Your task to perform on an android device: turn on location history Image 0: 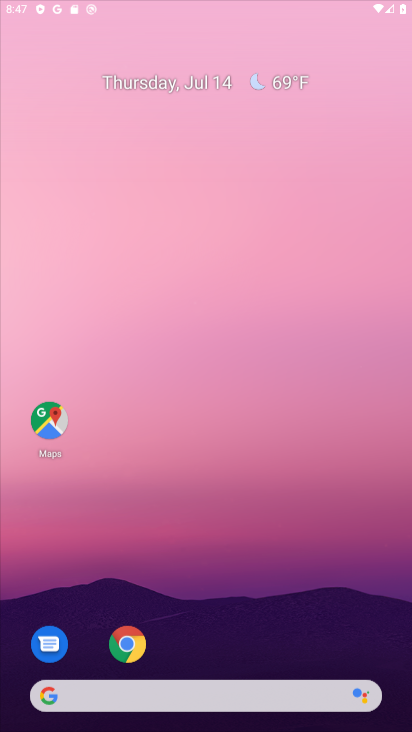
Step 0: click (232, 2)
Your task to perform on an android device: turn on location history Image 1: 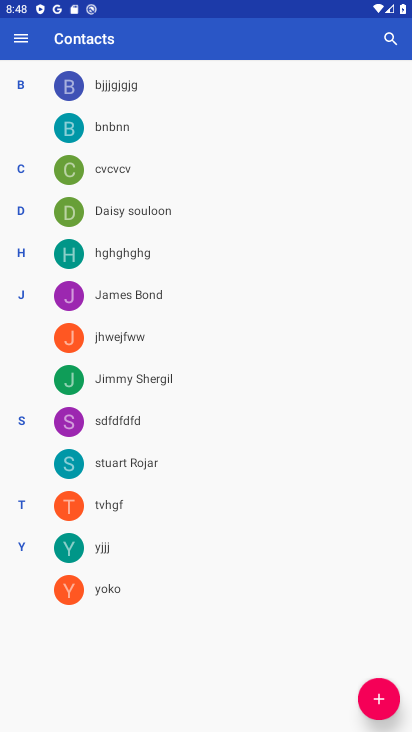
Step 1: press home button
Your task to perform on an android device: turn on location history Image 2: 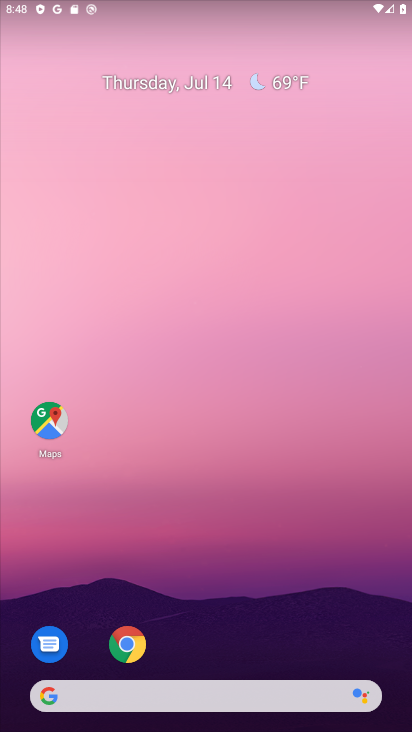
Step 2: click (115, 652)
Your task to perform on an android device: turn on location history Image 3: 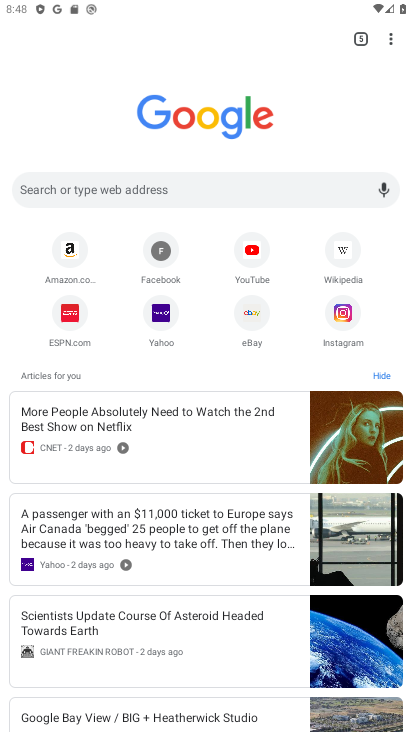
Step 3: press home button
Your task to perform on an android device: turn on location history Image 4: 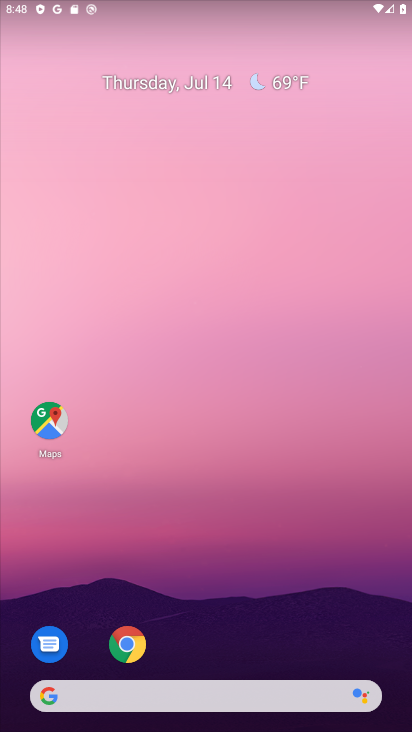
Step 4: drag from (353, 247) to (333, 141)
Your task to perform on an android device: turn on location history Image 5: 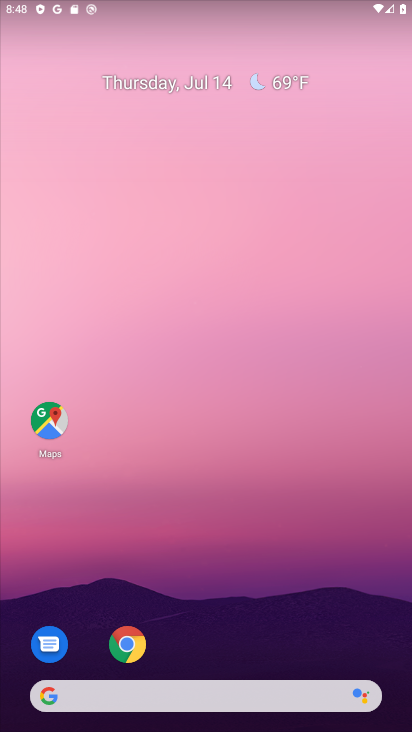
Step 5: drag from (176, 664) to (302, 1)
Your task to perform on an android device: turn on location history Image 6: 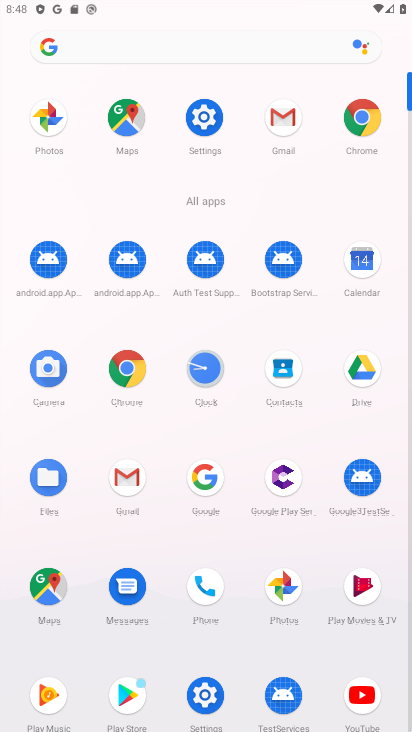
Step 6: click (192, 118)
Your task to perform on an android device: turn on location history Image 7: 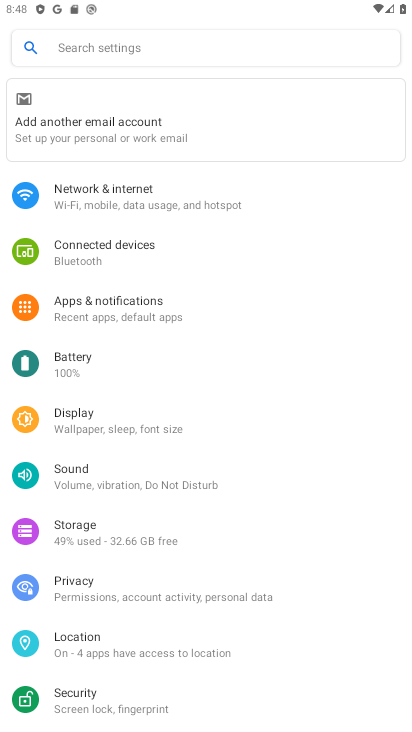
Step 7: click (143, 629)
Your task to perform on an android device: turn on location history Image 8: 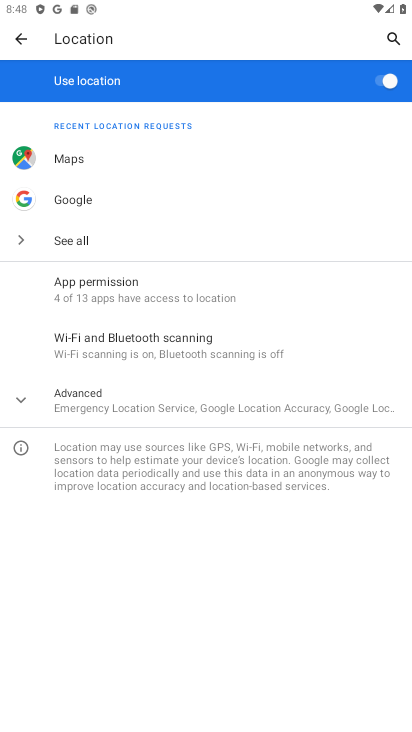
Step 8: click (152, 402)
Your task to perform on an android device: turn on location history Image 9: 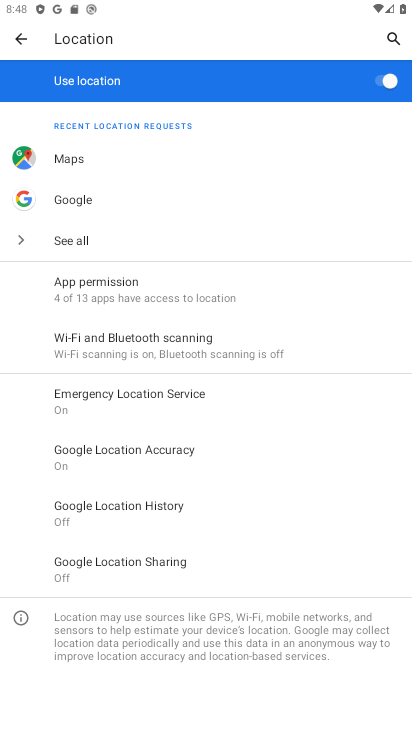
Step 9: click (211, 509)
Your task to perform on an android device: turn on location history Image 10: 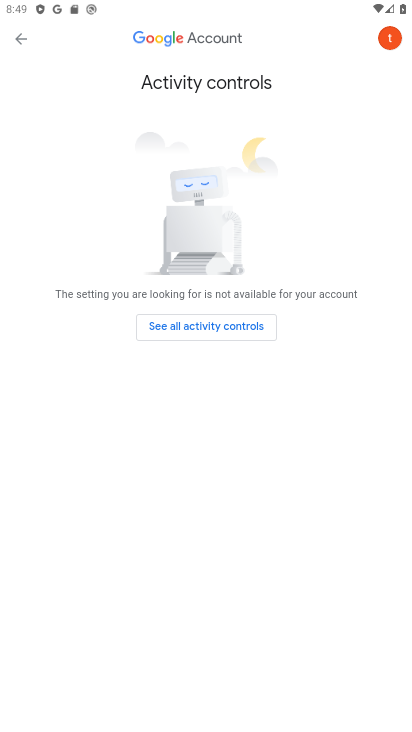
Step 10: task complete